Your task to perform on an android device: Go to network settings Image 0: 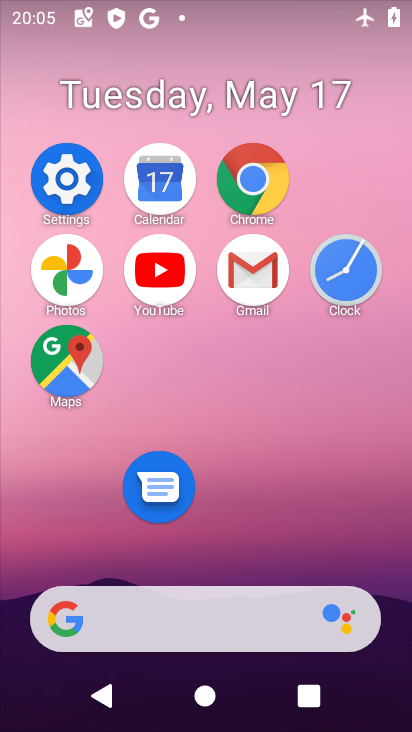
Step 0: click (79, 169)
Your task to perform on an android device: Go to network settings Image 1: 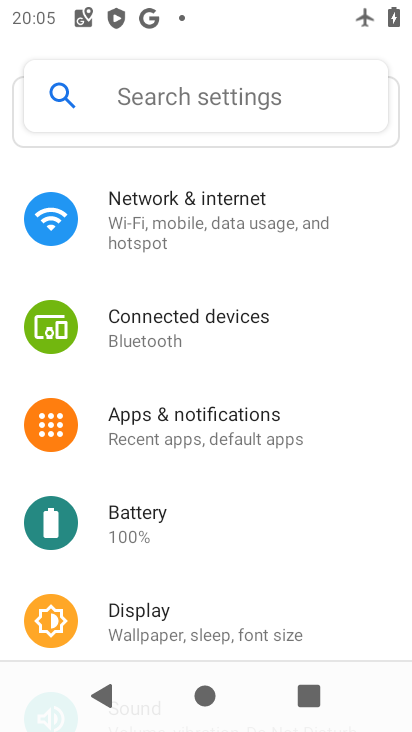
Step 1: click (134, 266)
Your task to perform on an android device: Go to network settings Image 2: 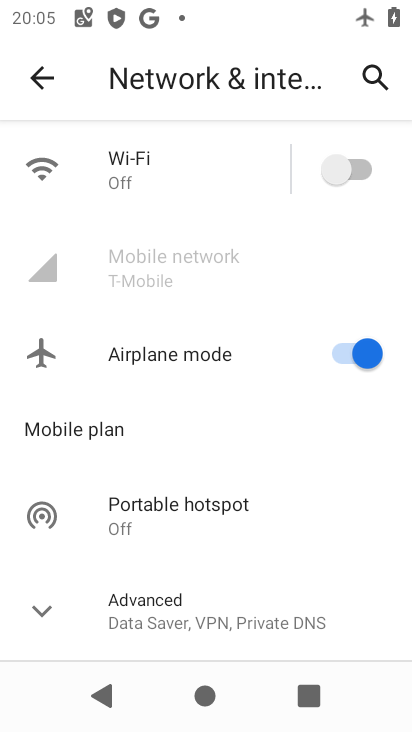
Step 2: task complete